Your task to perform on an android device: turn on data saver in the chrome app Image 0: 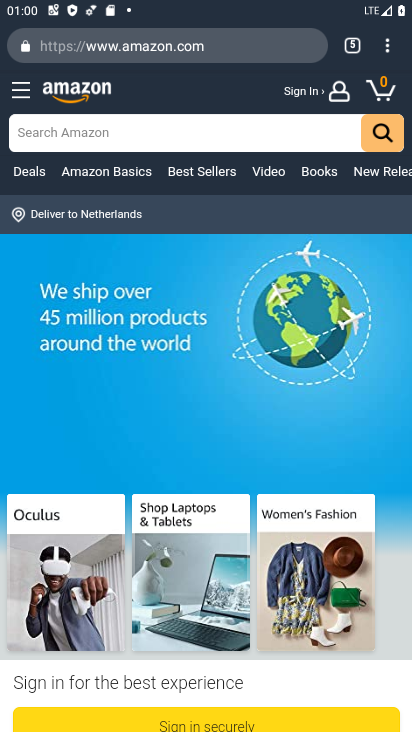
Step 0: press home button
Your task to perform on an android device: turn on data saver in the chrome app Image 1: 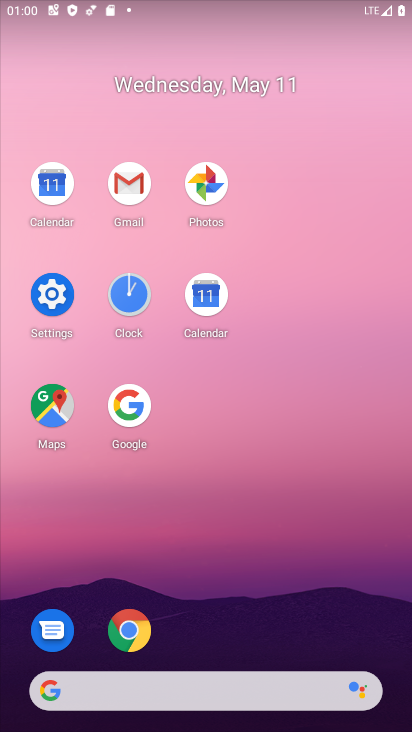
Step 1: click (161, 616)
Your task to perform on an android device: turn on data saver in the chrome app Image 2: 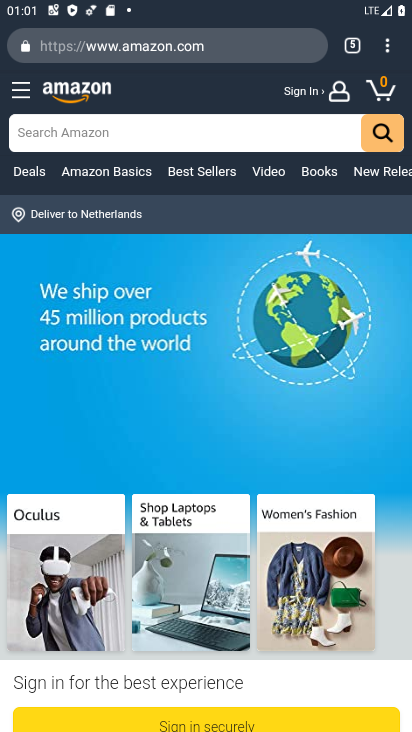
Step 2: click (378, 44)
Your task to perform on an android device: turn on data saver in the chrome app Image 3: 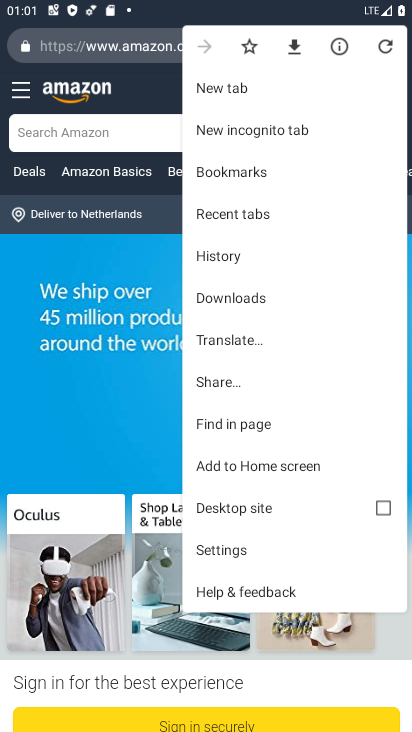
Step 3: click (260, 554)
Your task to perform on an android device: turn on data saver in the chrome app Image 4: 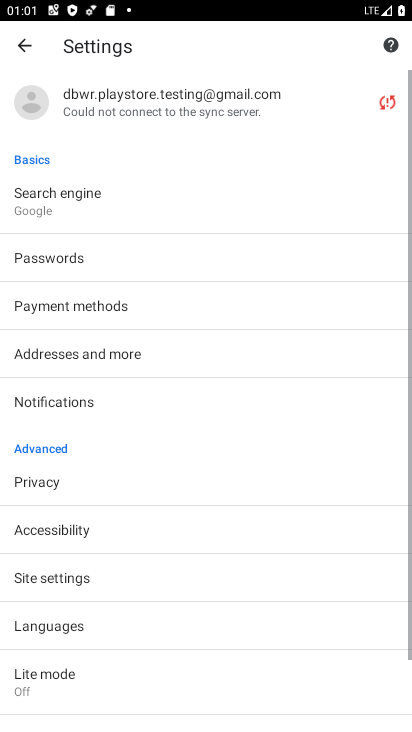
Step 4: drag from (182, 579) to (170, 233)
Your task to perform on an android device: turn on data saver in the chrome app Image 5: 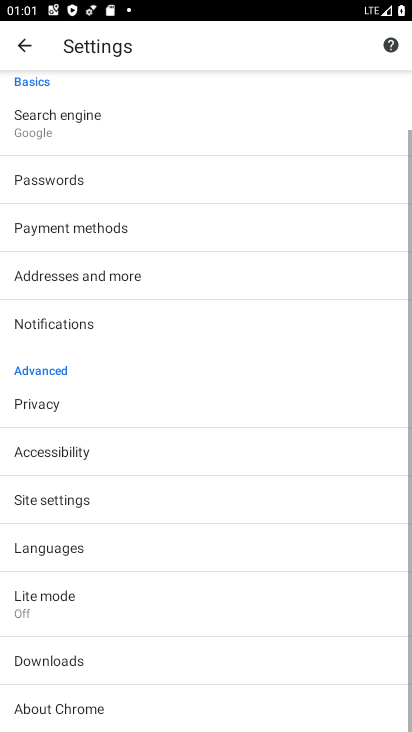
Step 5: click (83, 606)
Your task to perform on an android device: turn on data saver in the chrome app Image 6: 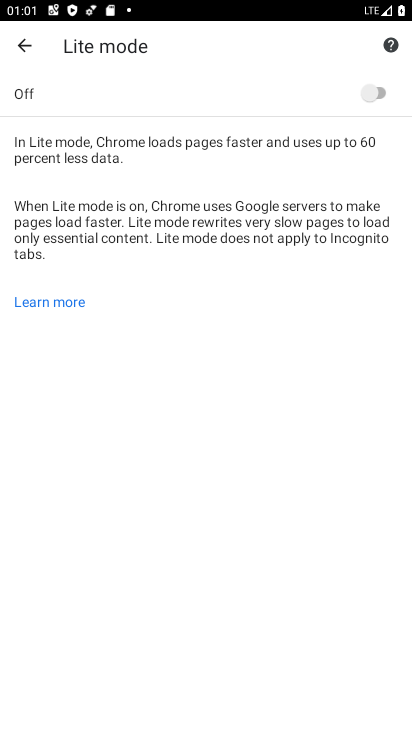
Step 6: click (357, 89)
Your task to perform on an android device: turn on data saver in the chrome app Image 7: 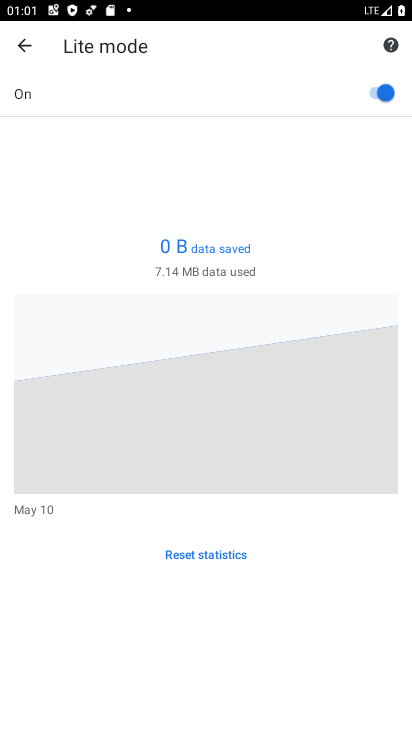
Step 7: task complete